Your task to perform on an android device: make emails show in primary in the gmail app Image 0: 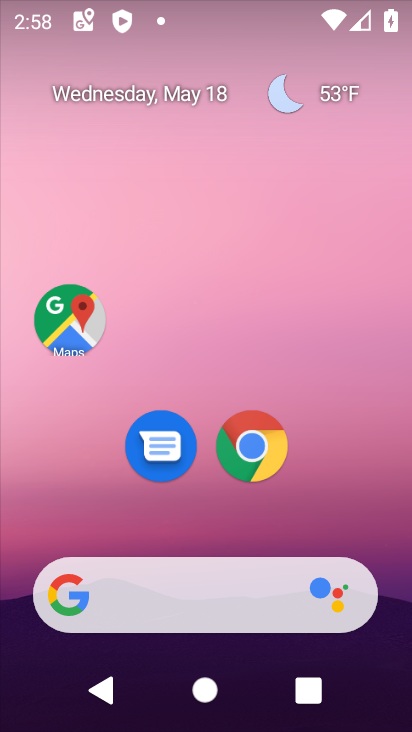
Step 0: drag from (332, 505) to (286, 0)
Your task to perform on an android device: make emails show in primary in the gmail app Image 1: 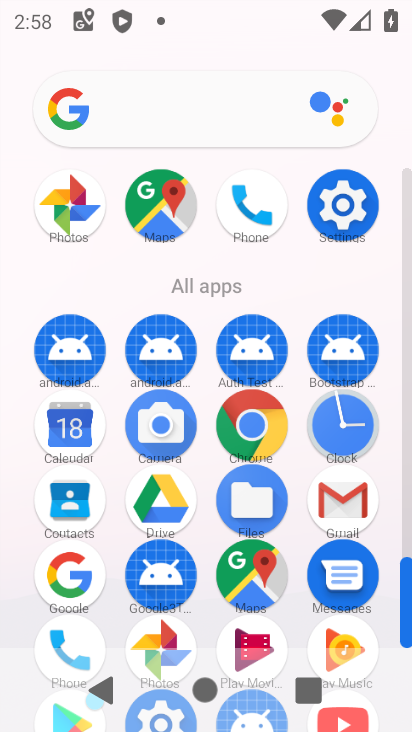
Step 1: drag from (212, 288) to (208, 102)
Your task to perform on an android device: make emails show in primary in the gmail app Image 2: 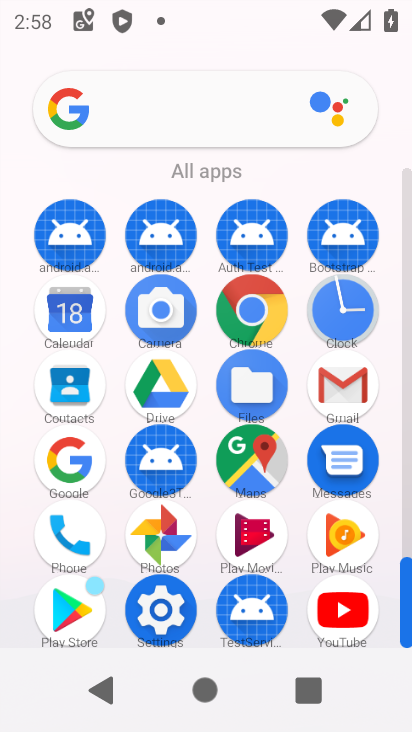
Step 2: click (339, 356)
Your task to perform on an android device: make emails show in primary in the gmail app Image 3: 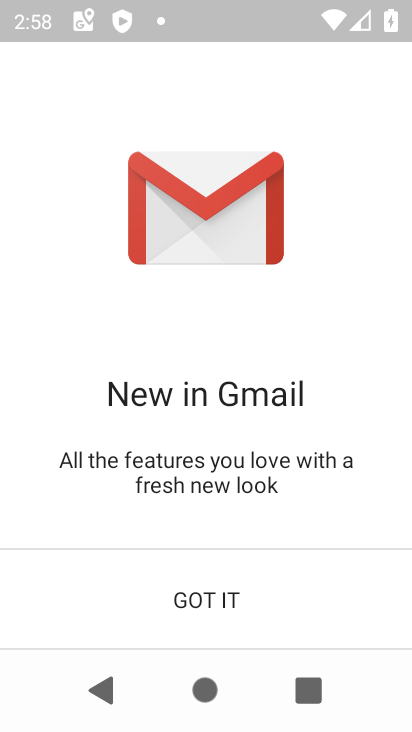
Step 3: click (217, 589)
Your task to perform on an android device: make emails show in primary in the gmail app Image 4: 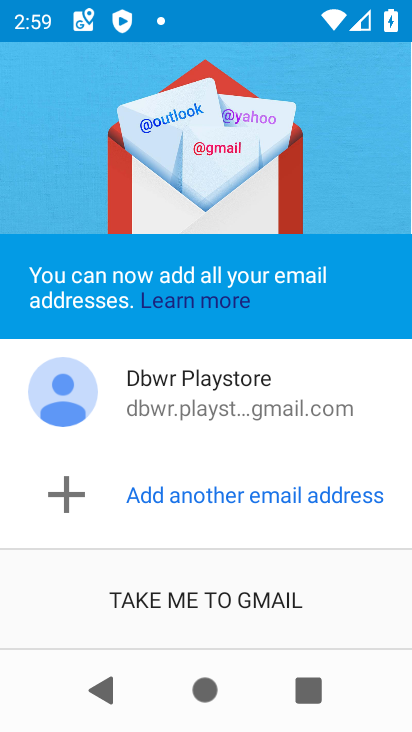
Step 4: click (181, 594)
Your task to perform on an android device: make emails show in primary in the gmail app Image 5: 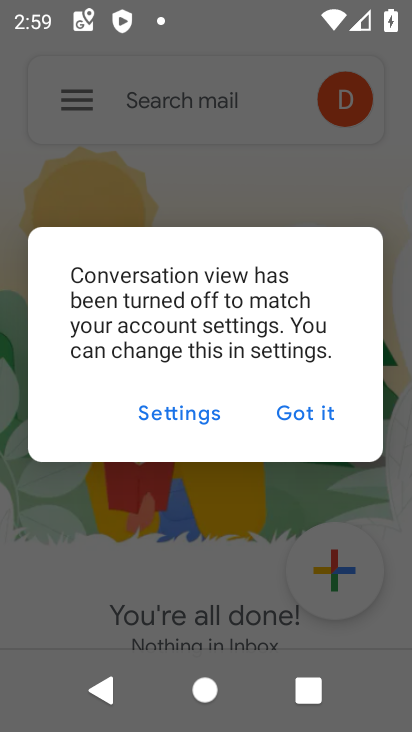
Step 5: click (334, 399)
Your task to perform on an android device: make emails show in primary in the gmail app Image 6: 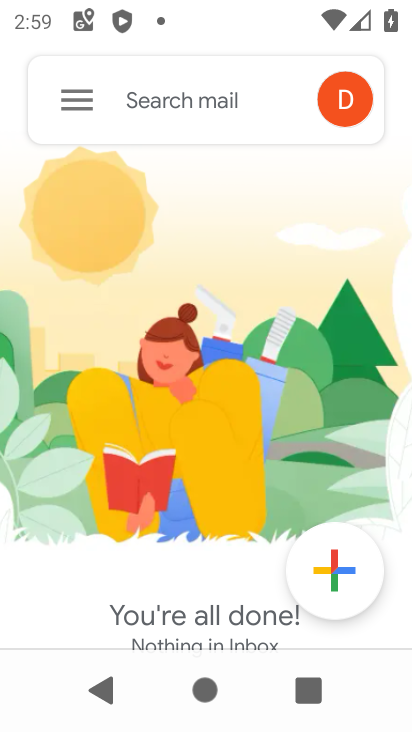
Step 6: click (87, 96)
Your task to perform on an android device: make emails show in primary in the gmail app Image 7: 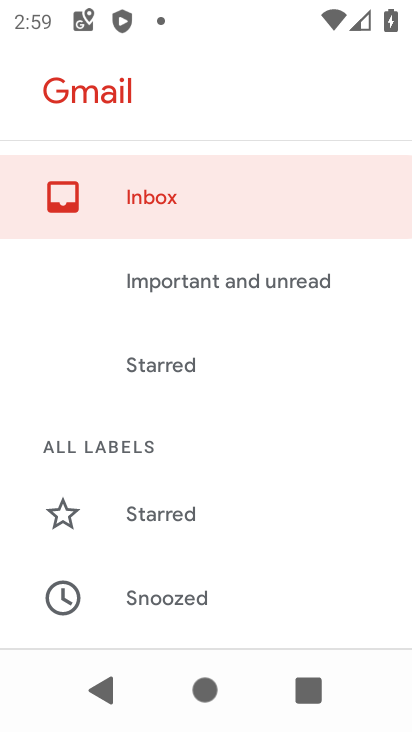
Step 7: drag from (195, 563) to (243, 129)
Your task to perform on an android device: make emails show in primary in the gmail app Image 8: 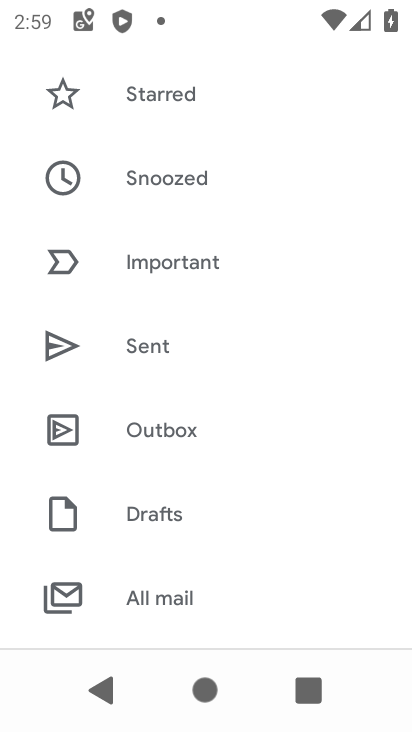
Step 8: drag from (225, 590) to (232, 148)
Your task to perform on an android device: make emails show in primary in the gmail app Image 9: 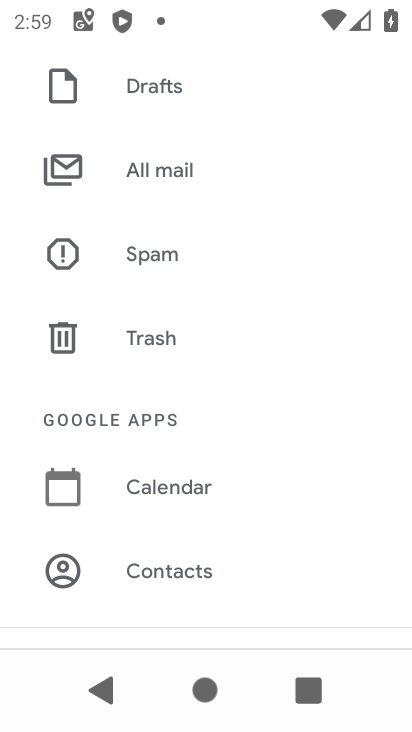
Step 9: drag from (171, 541) to (164, 145)
Your task to perform on an android device: make emails show in primary in the gmail app Image 10: 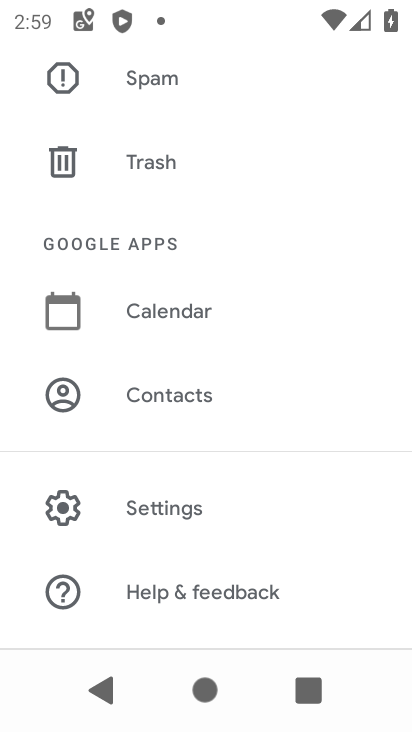
Step 10: click (175, 509)
Your task to perform on an android device: make emails show in primary in the gmail app Image 11: 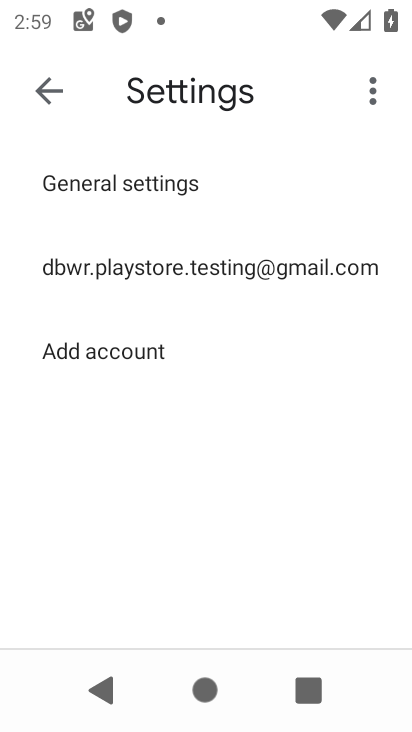
Step 11: click (177, 257)
Your task to perform on an android device: make emails show in primary in the gmail app Image 12: 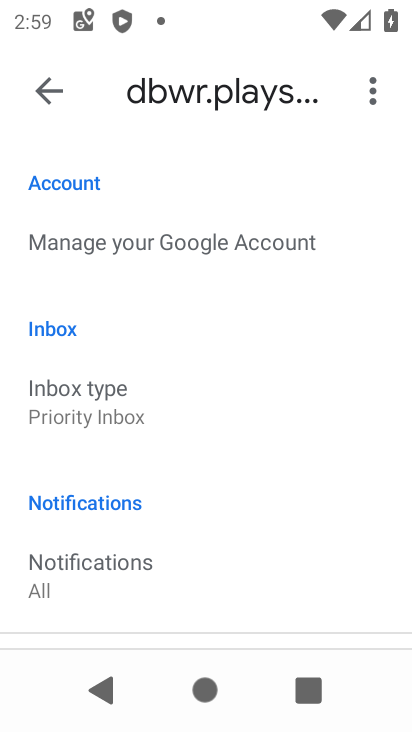
Step 12: click (138, 415)
Your task to perform on an android device: make emails show in primary in the gmail app Image 13: 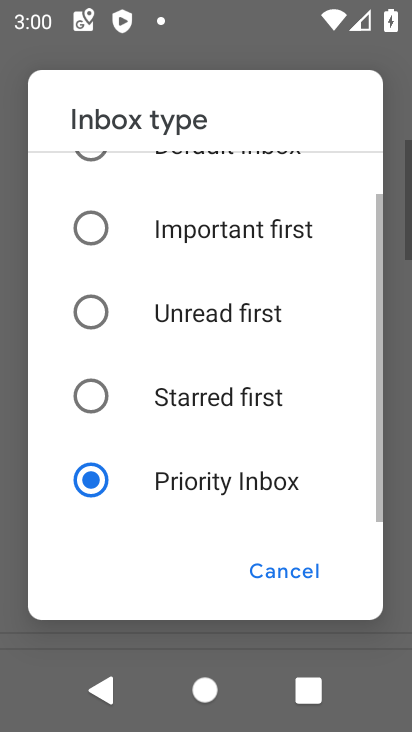
Step 13: drag from (110, 228) to (161, 534)
Your task to perform on an android device: make emails show in primary in the gmail app Image 14: 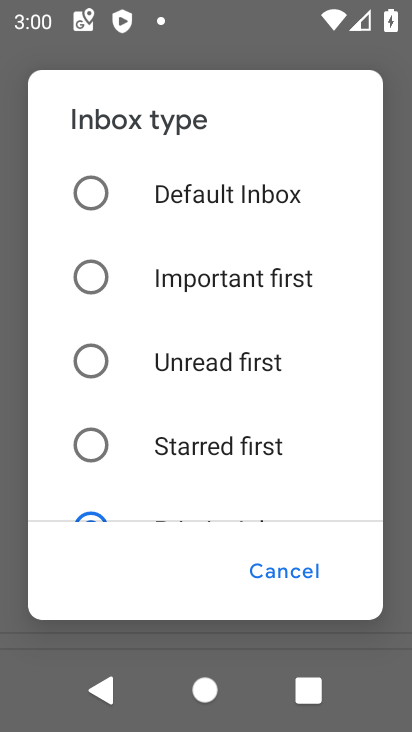
Step 14: click (105, 199)
Your task to perform on an android device: make emails show in primary in the gmail app Image 15: 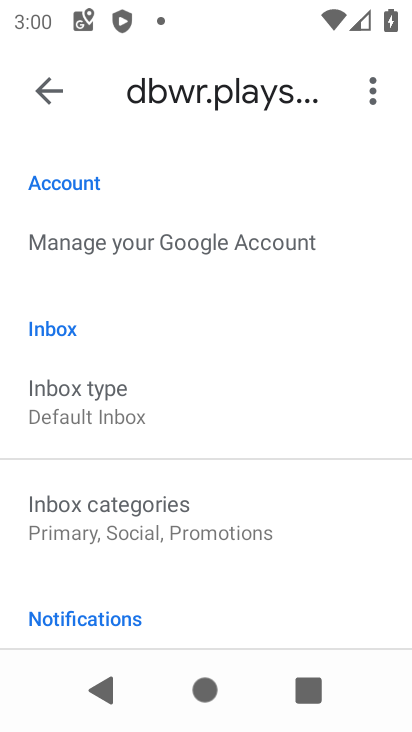
Step 15: click (147, 514)
Your task to perform on an android device: make emails show in primary in the gmail app Image 16: 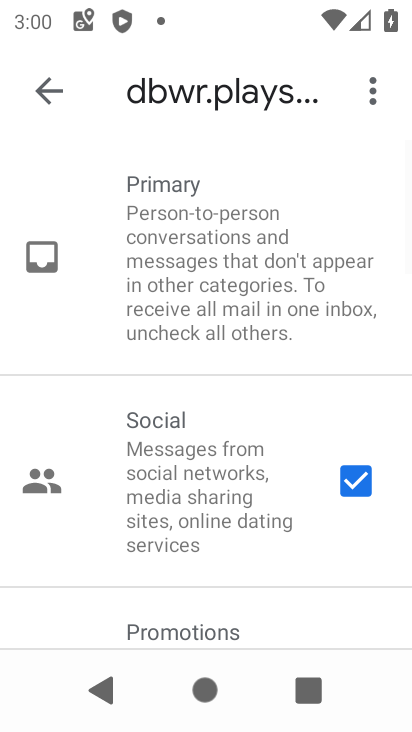
Step 16: click (352, 471)
Your task to perform on an android device: make emails show in primary in the gmail app Image 17: 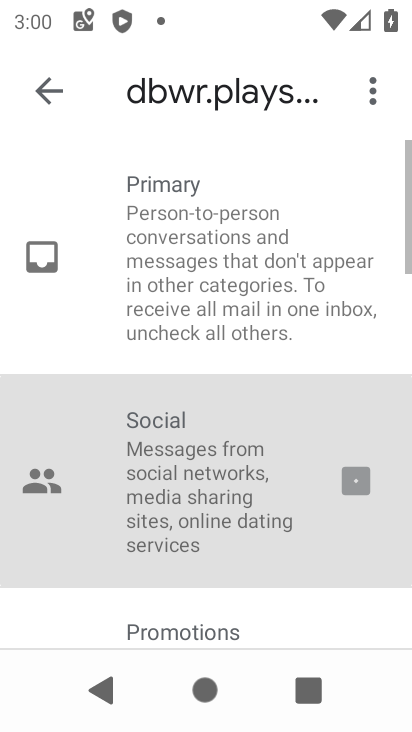
Step 17: drag from (185, 457) to (146, 227)
Your task to perform on an android device: make emails show in primary in the gmail app Image 18: 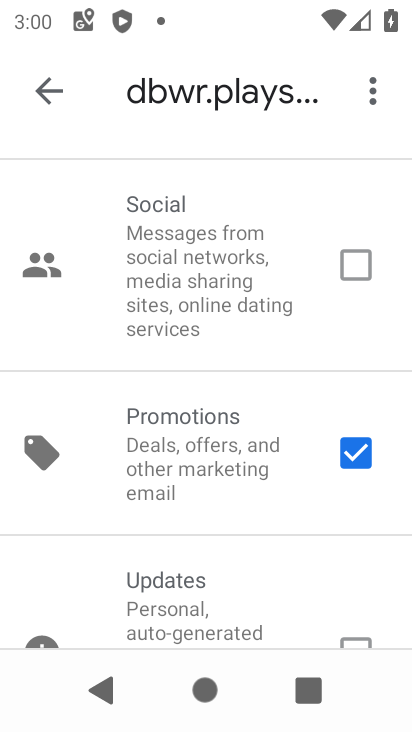
Step 18: click (356, 468)
Your task to perform on an android device: make emails show in primary in the gmail app Image 19: 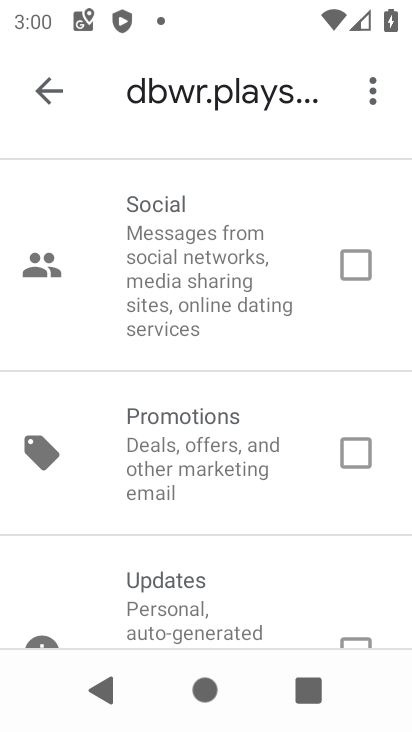
Step 19: task complete